Your task to perform on an android device: turn smart compose on in the gmail app Image 0: 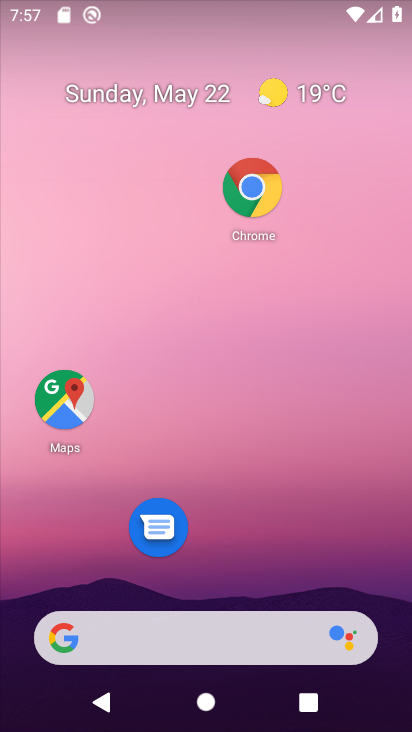
Step 0: press home button
Your task to perform on an android device: turn smart compose on in the gmail app Image 1: 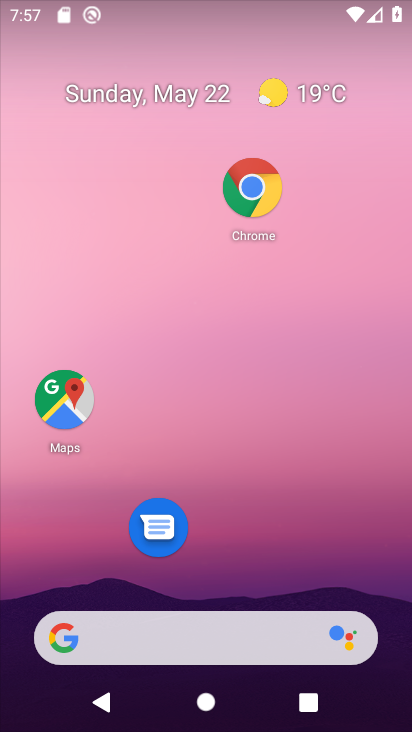
Step 1: press home button
Your task to perform on an android device: turn smart compose on in the gmail app Image 2: 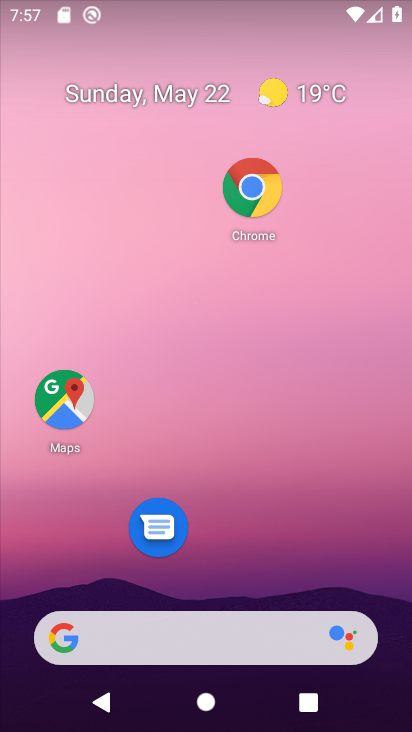
Step 2: drag from (223, 583) to (235, 64)
Your task to perform on an android device: turn smart compose on in the gmail app Image 3: 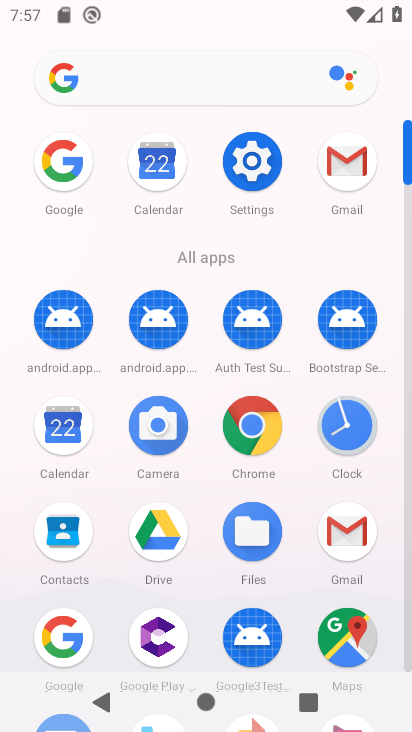
Step 3: click (347, 155)
Your task to perform on an android device: turn smart compose on in the gmail app Image 4: 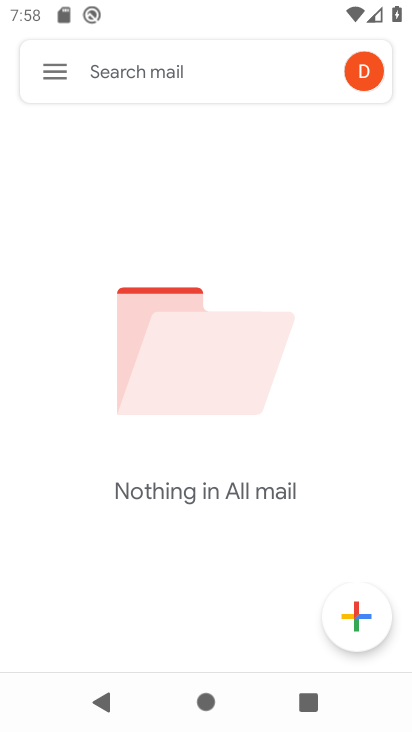
Step 4: click (50, 66)
Your task to perform on an android device: turn smart compose on in the gmail app Image 5: 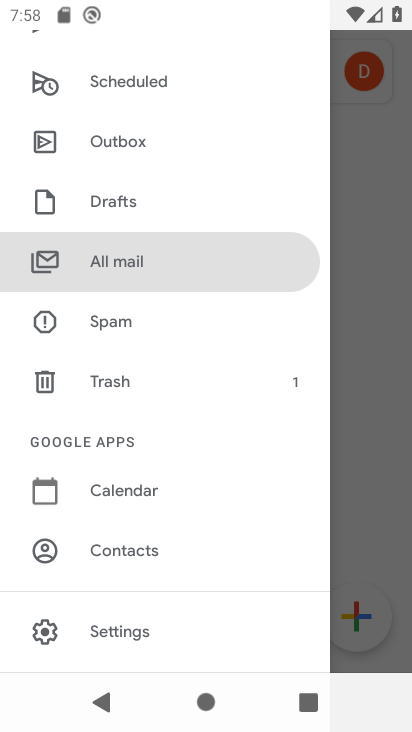
Step 5: click (159, 625)
Your task to perform on an android device: turn smart compose on in the gmail app Image 6: 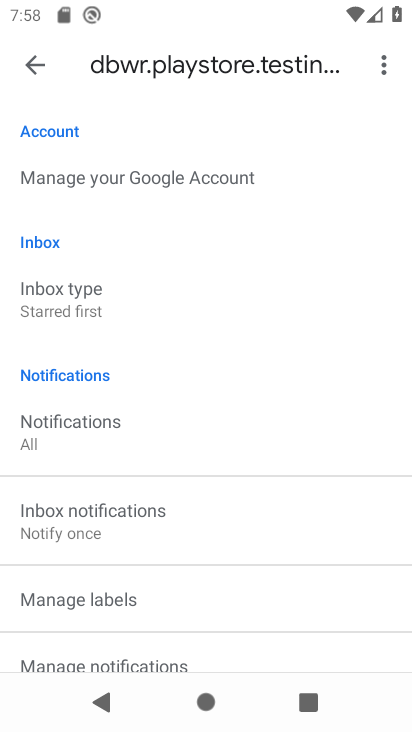
Step 6: drag from (229, 637) to (239, 307)
Your task to perform on an android device: turn smart compose on in the gmail app Image 7: 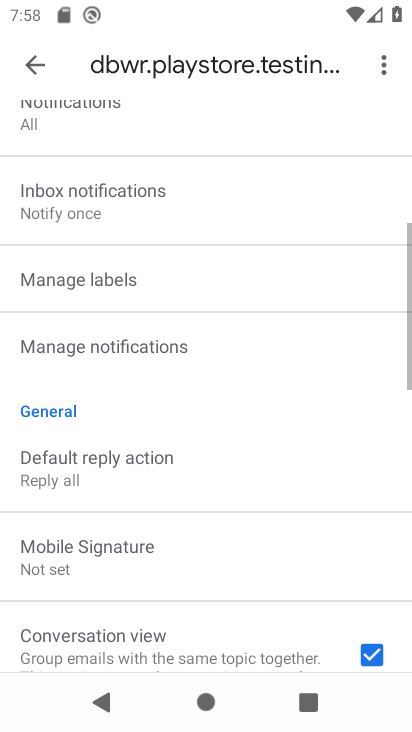
Step 7: click (239, 174)
Your task to perform on an android device: turn smart compose on in the gmail app Image 8: 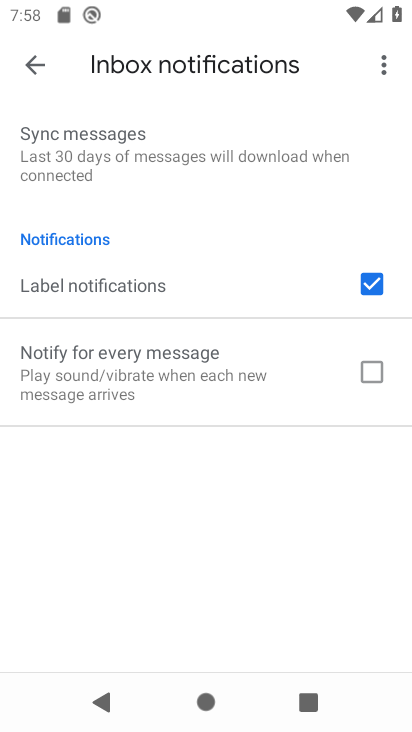
Step 8: click (41, 62)
Your task to perform on an android device: turn smart compose on in the gmail app Image 9: 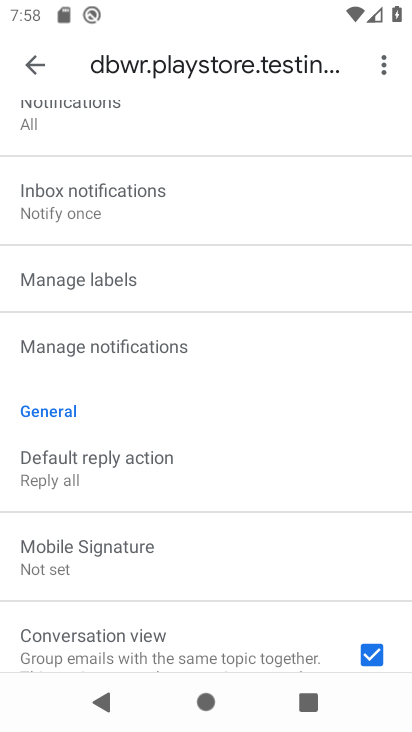
Step 9: task complete